Your task to perform on an android device: What's the weather today? Image 0: 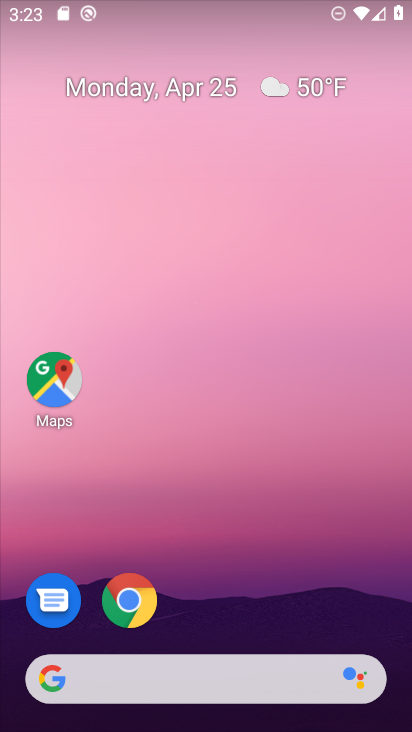
Step 0: drag from (195, 655) to (236, 42)
Your task to perform on an android device: What's the weather today? Image 1: 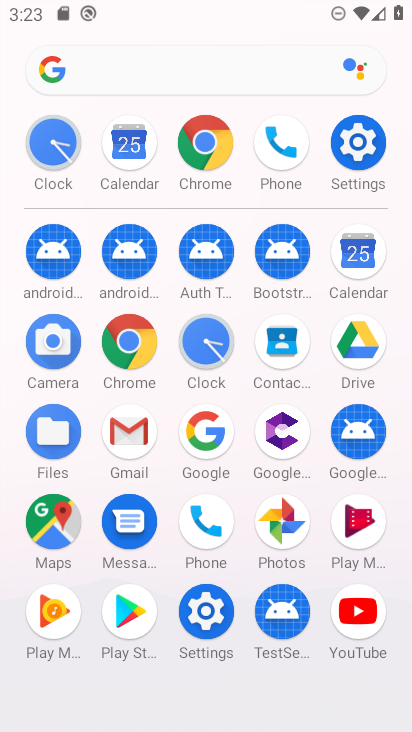
Step 1: click (214, 430)
Your task to perform on an android device: What's the weather today? Image 2: 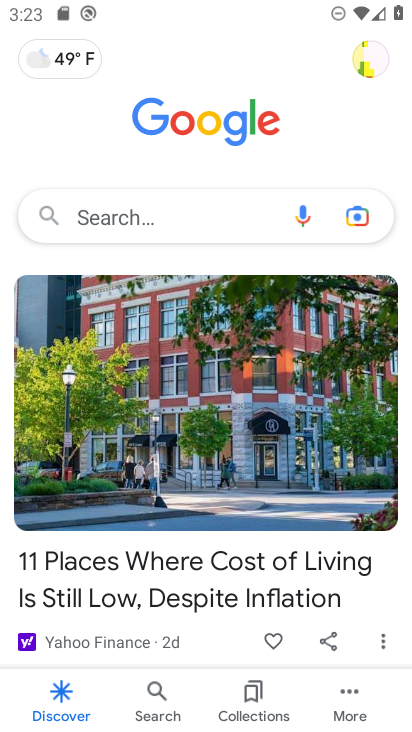
Step 2: click (194, 241)
Your task to perform on an android device: What's the weather today? Image 3: 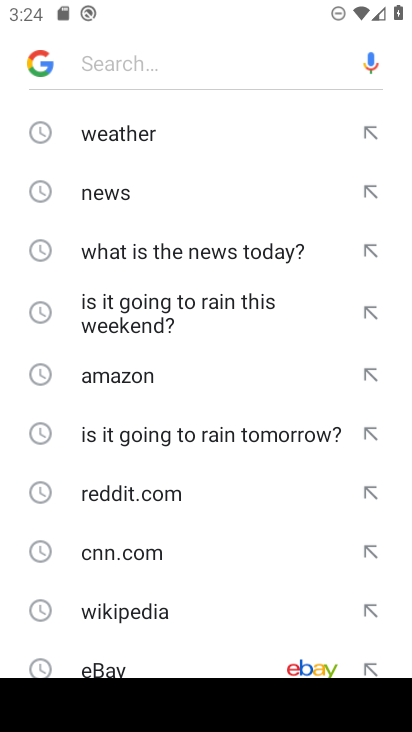
Step 3: click (155, 140)
Your task to perform on an android device: What's the weather today? Image 4: 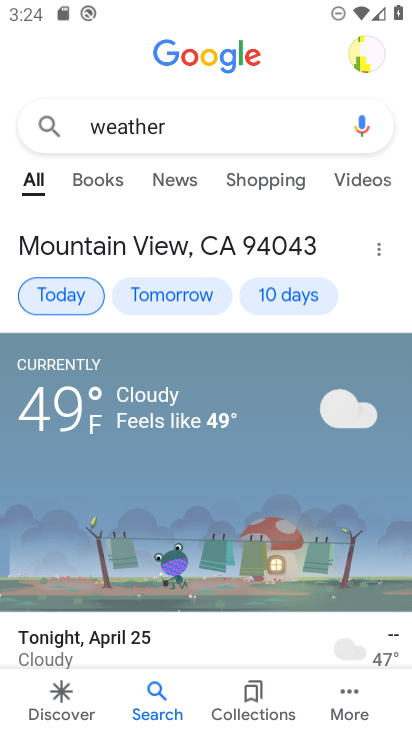
Step 4: task complete